Your task to perform on an android device: delete the emails in spam in the gmail app Image 0: 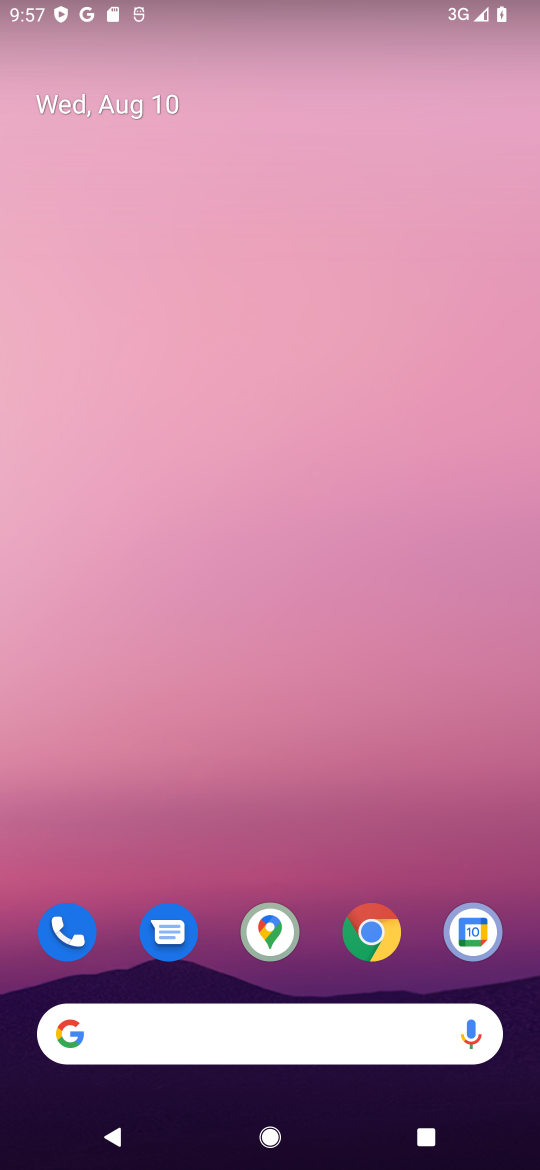
Step 0: drag from (338, 823) to (271, 177)
Your task to perform on an android device: delete the emails in spam in the gmail app Image 1: 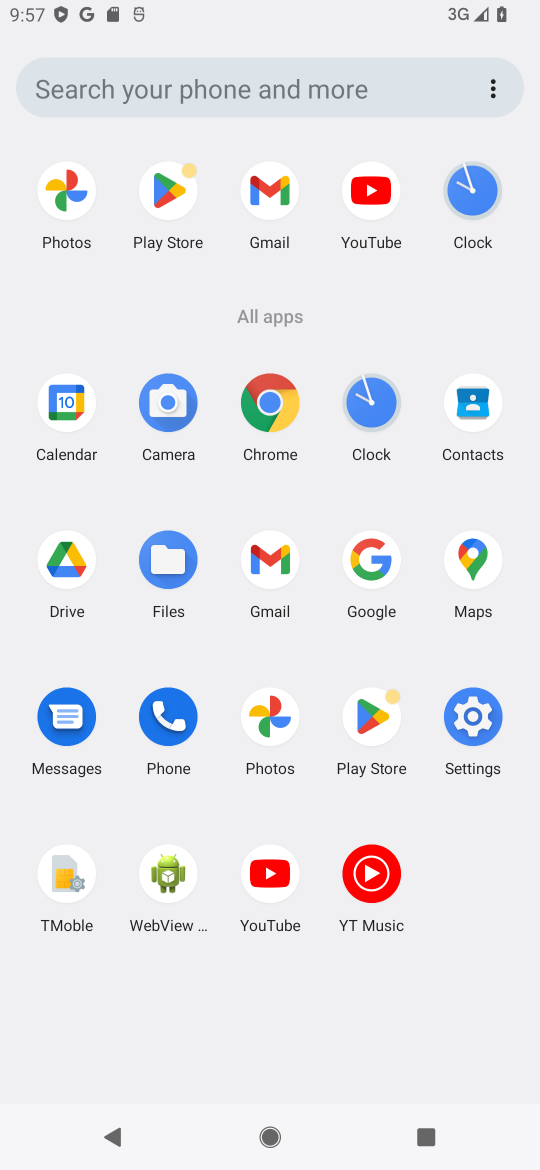
Step 1: click (274, 187)
Your task to perform on an android device: delete the emails in spam in the gmail app Image 2: 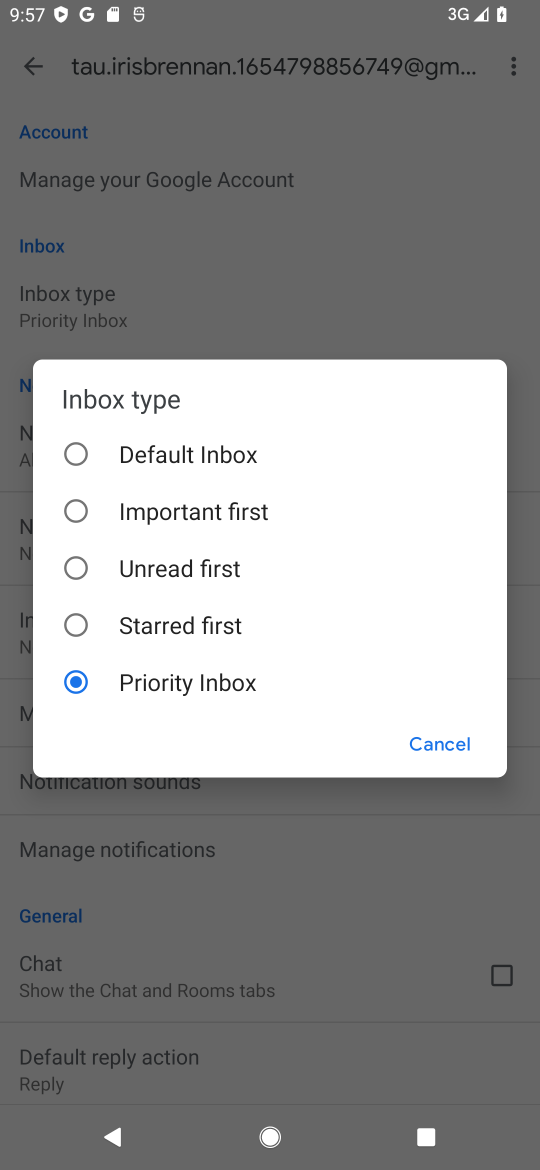
Step 2: click (445, 740)
Your task to perform on an android device: delete the emails in spam in the gmail app Image 3: 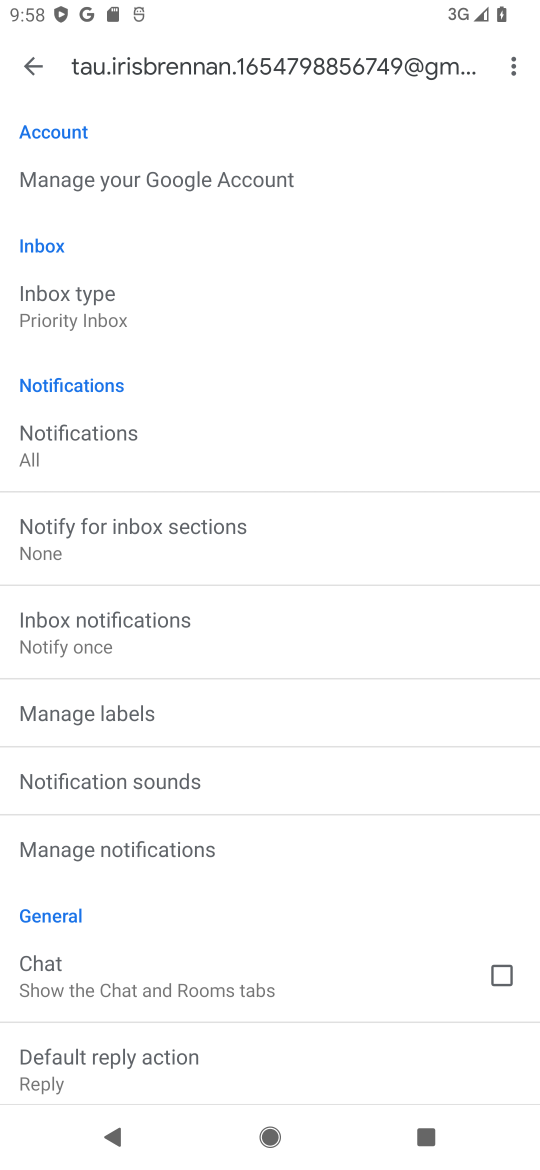
Step 3: click (39, 57)
Your task to perform on an android device: delete the emails in spam in the gmail app Image 4: 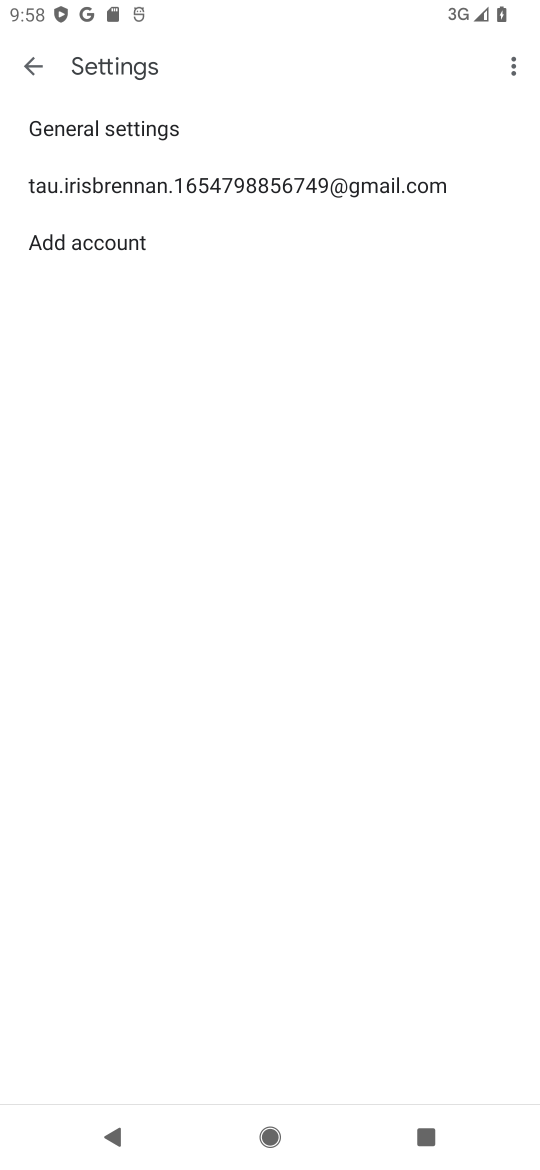
Step 4: click (28, 59)
Your task to perform on an android device: delete the emails in spam in the gmail app Image 5: 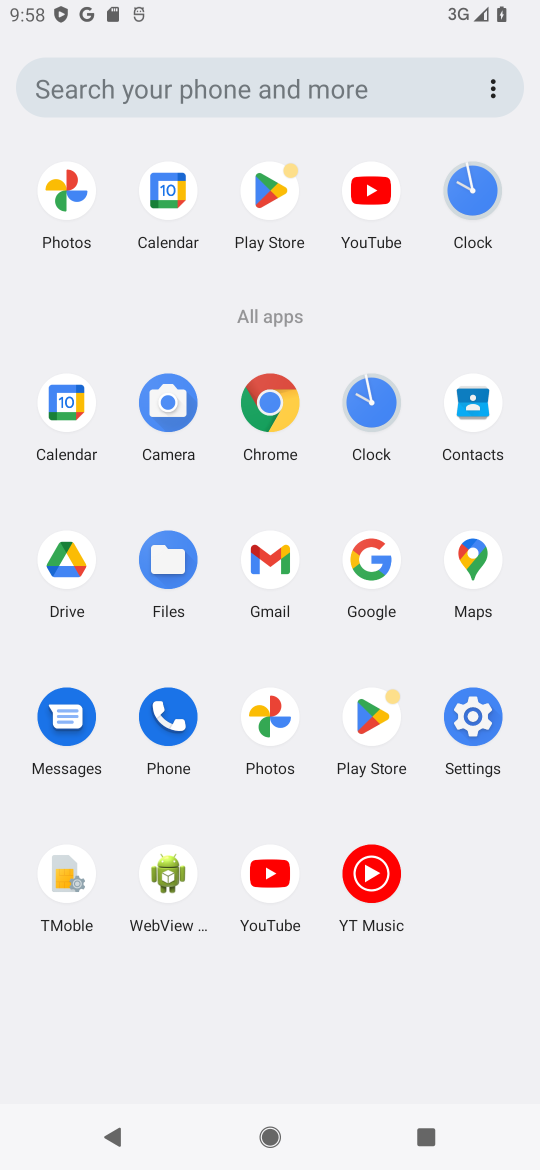
Step 5: click (272, 568)
Your task to perform on an android device: delete the emails in spam in the gmail app Image 6: 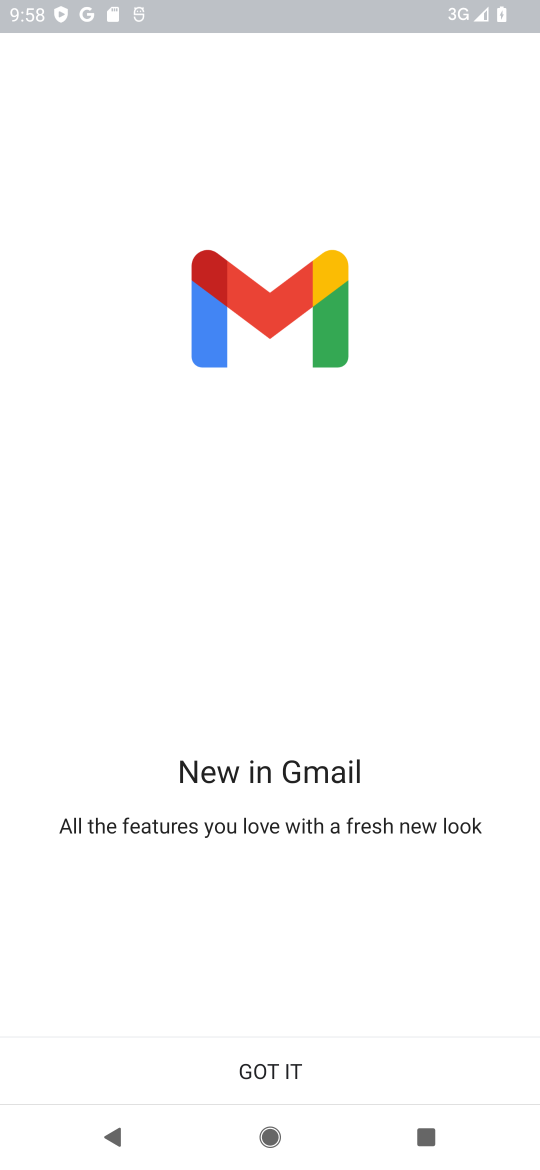
Step 6: click (283, 1064)
Your task to perform on an android device: delete the emails in spam in the gmail app Image 7: 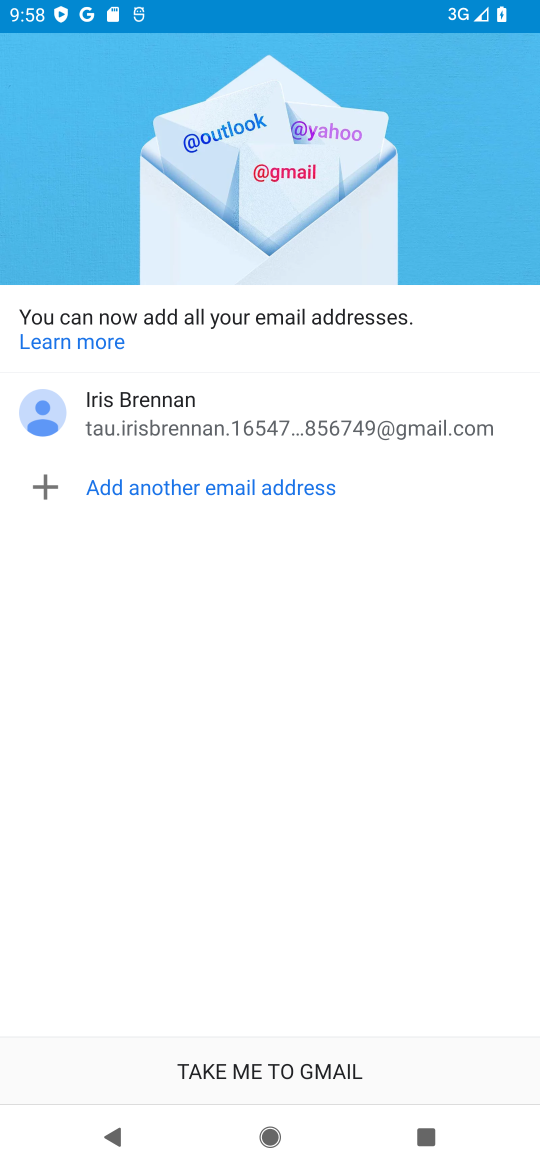
Step 7: click (273, 1063)
Your task to perform on an android device: delete the emails in spam in the gmail app Image 8: 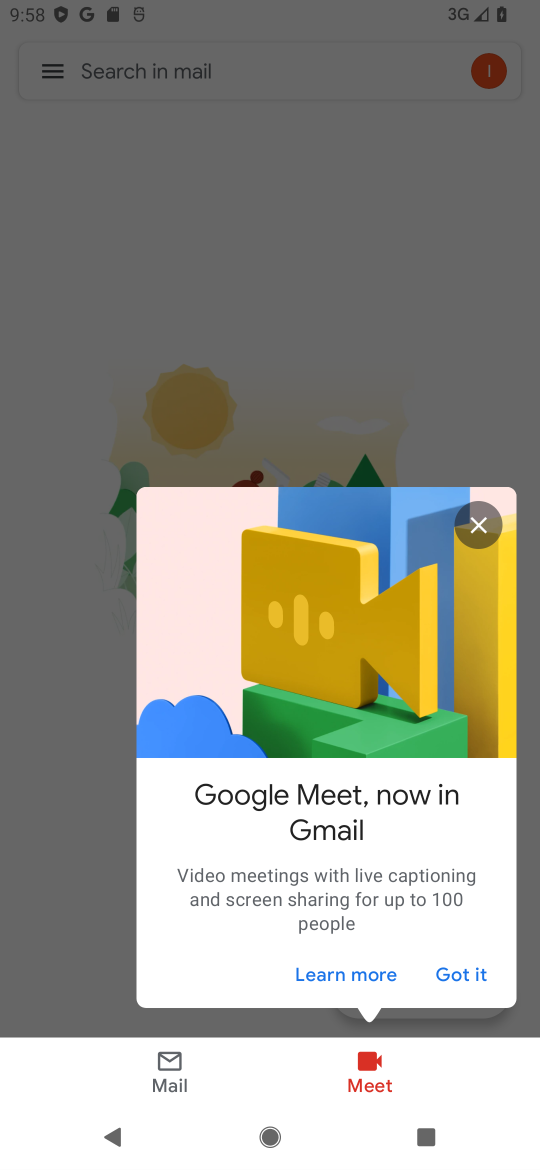
Step 8: click (442, 962)
Your task to perform on an android device: delete the emails in spam in the gmail app Image 9: 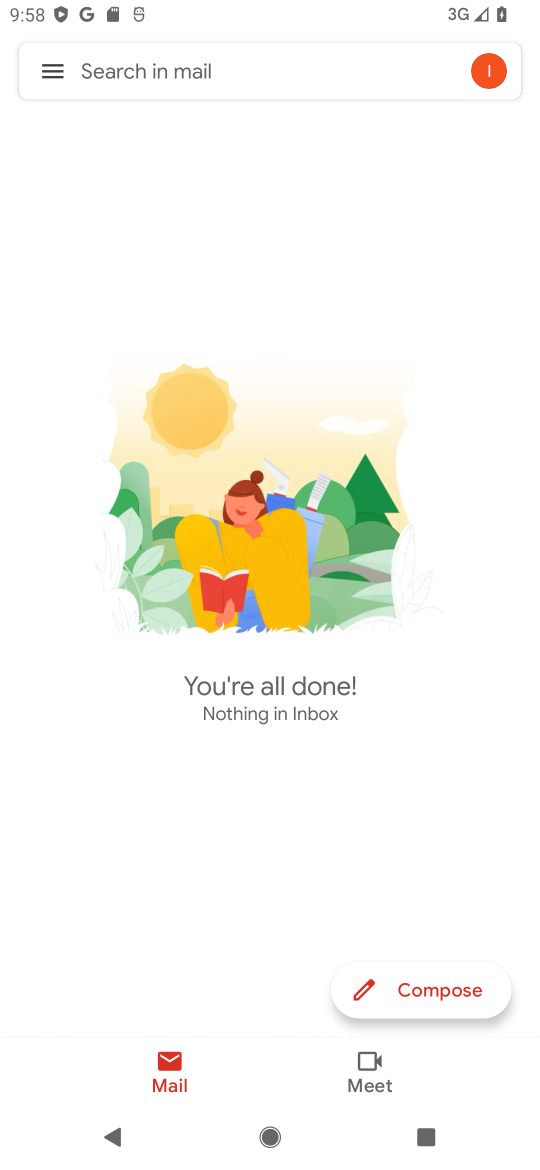
Step 9: click (51, 52)
Your task to perform on an android device: delete the emails in spam in the gmail app Image 10: 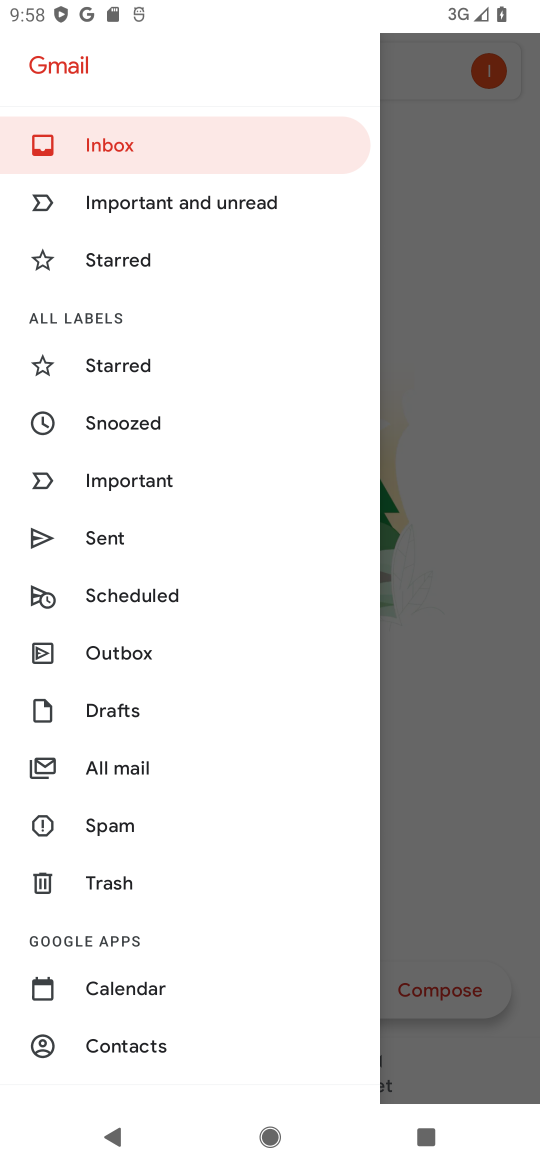
Step 10: drag from (205, 988) to (178, 535)
Your task to perform on an android device: delete the emails in spam in the gmail app Image 11: 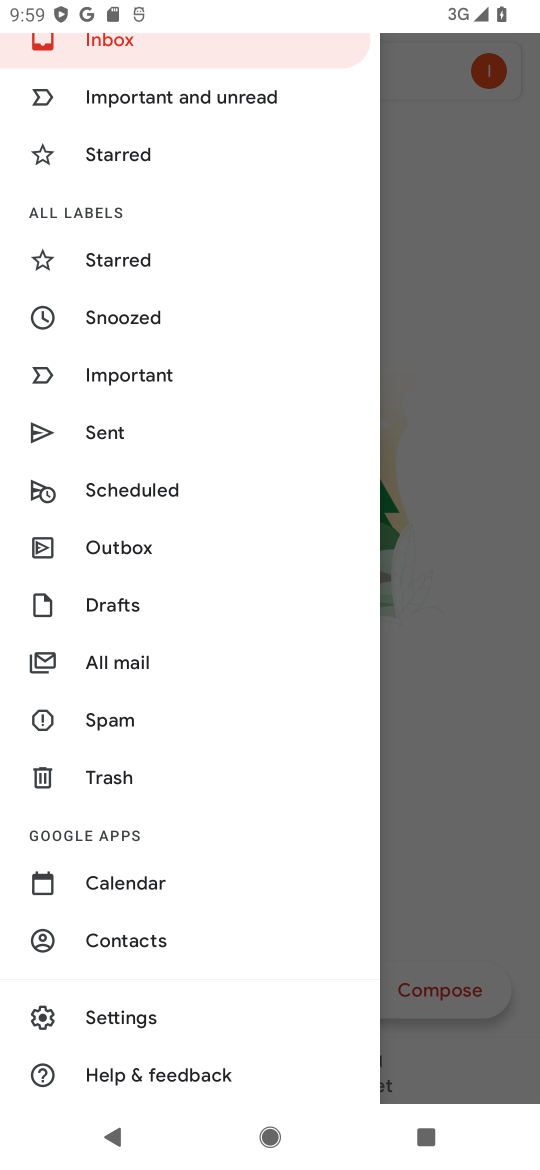
Step 11: click (105, 714)
Your task to perform on an android device: delete the emails in spam in the gmail app Image 12: 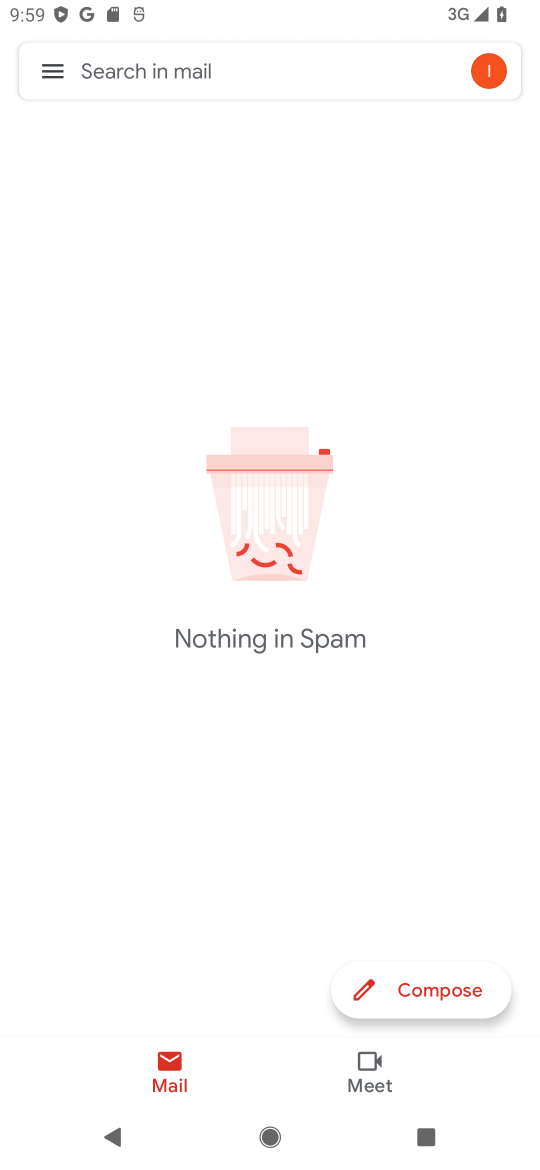
Step 12: task complete